Your task to perform on an android device: set default search engine in the chrome app Image 0: 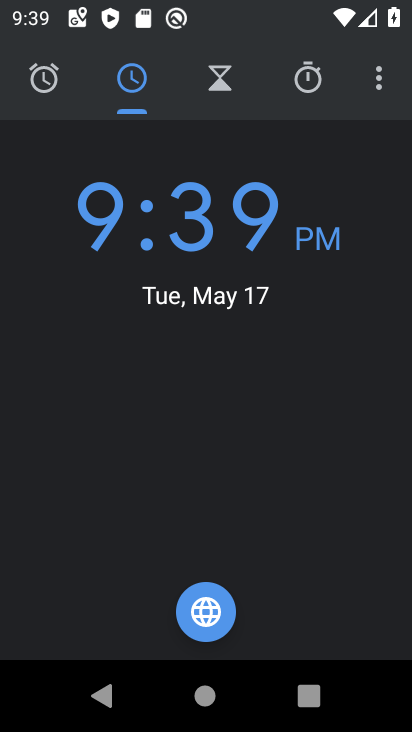
Step 0: press home button
Your task to perform on an android device: set default search engine in the chrome app Image 1: 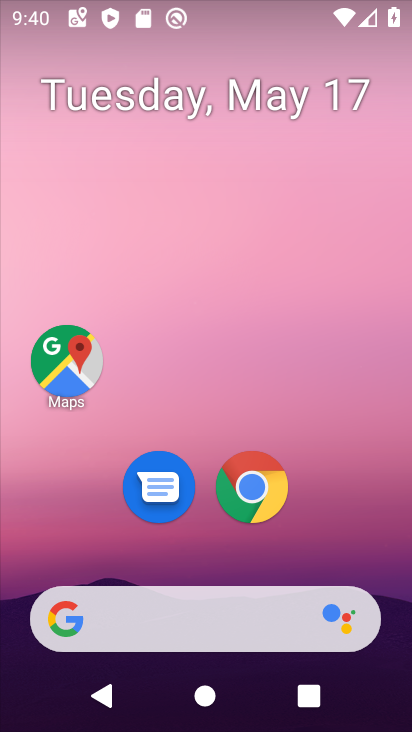
Step 1: drag from (235, 646) to (234, 352)
Your task to perform on an android device: set default search engine in the chrome app Image 2: 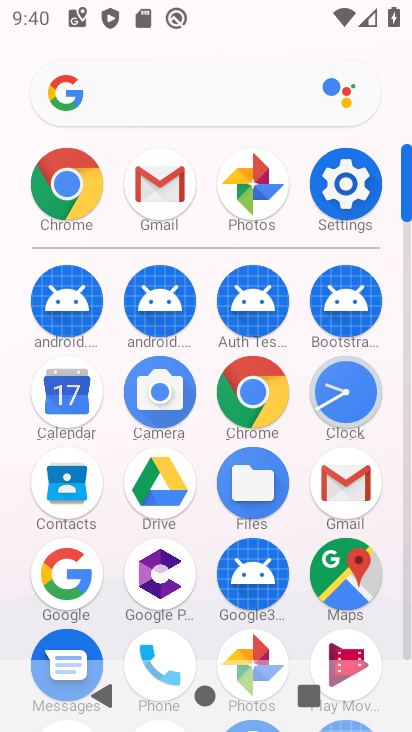
Step 2: click (252, 398)
Your task to perform on an android device: set default search engine in the chrome app Image 3: 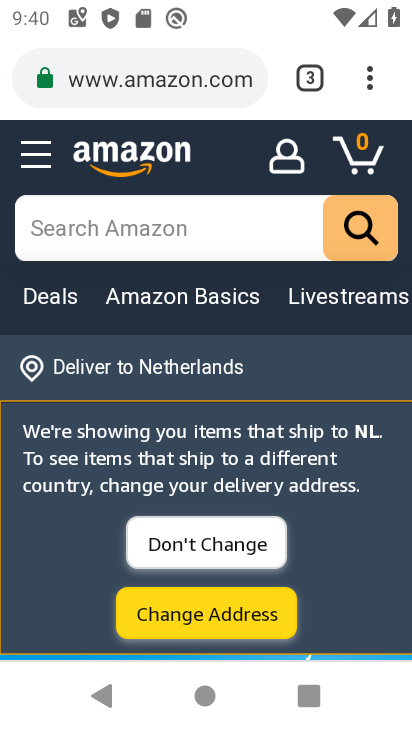
Step 3: click (357, 84)
Your task to perform on an android device: set default search engine in the chrome app Image 4: 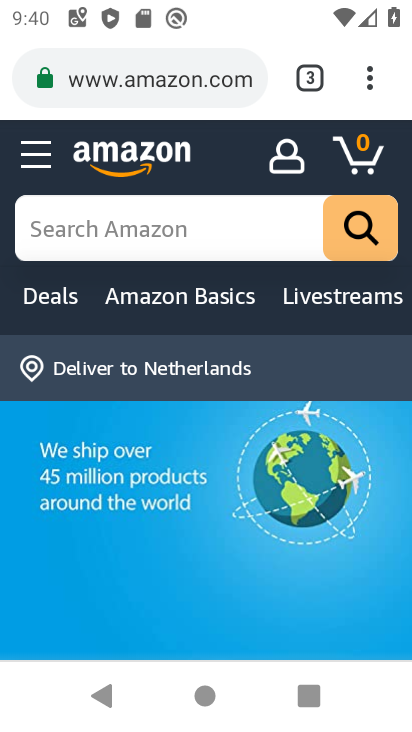
Step 4: click (355, 106)
Your task to perform on an android device: set default search engine in the chrome app Image 5: 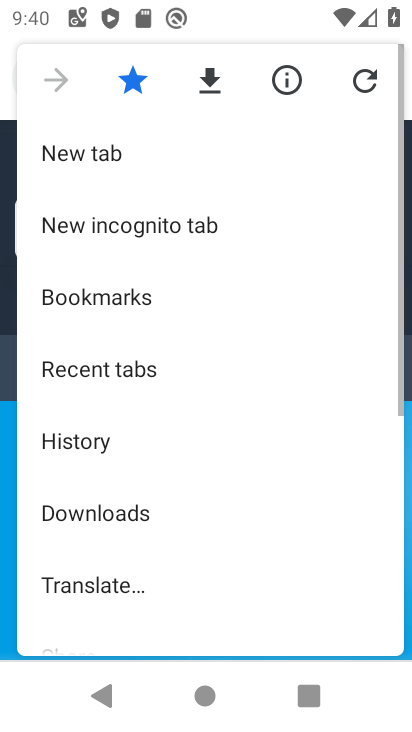
Step 5: drag from (174, 587) to (194, 312)
Your task to perform on an android device: set default search engine in the chrome app Image 6: 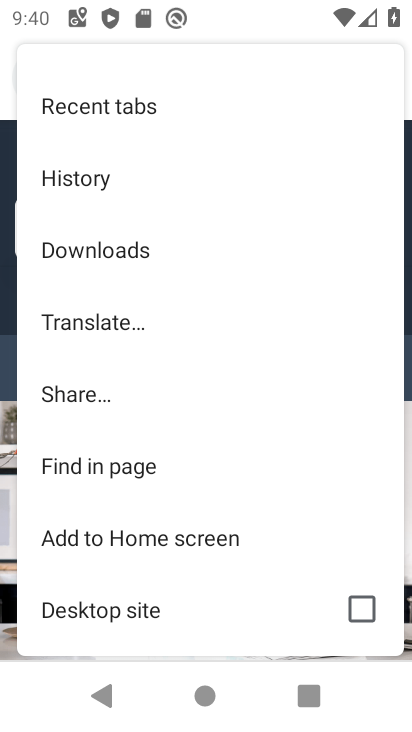
Step 6: drag from (112, 583) to (157, 264)
Your task to perform on an android device: set default search engine in the chrome app Image 7: 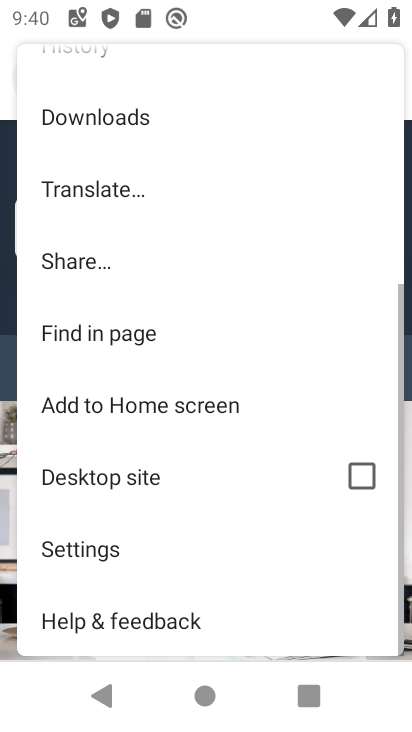
Step 7: click (124, 554)
Your task to perform on an android device: set default search engine in the chrome app Image 8: 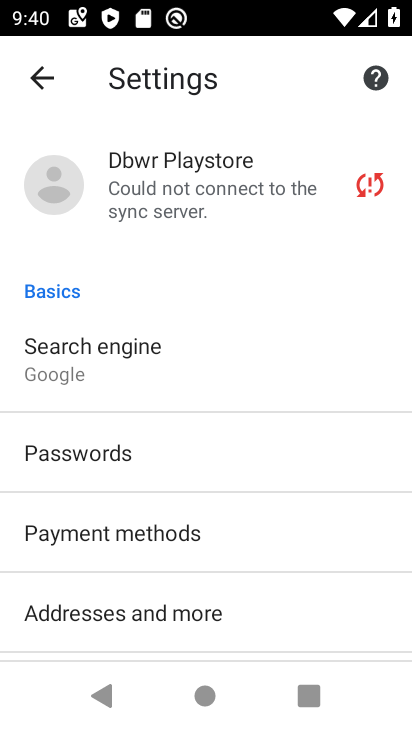
Step 8: click (114, 375)
Your task to perform on an android device: set default search engine in the chrome app Image 9: 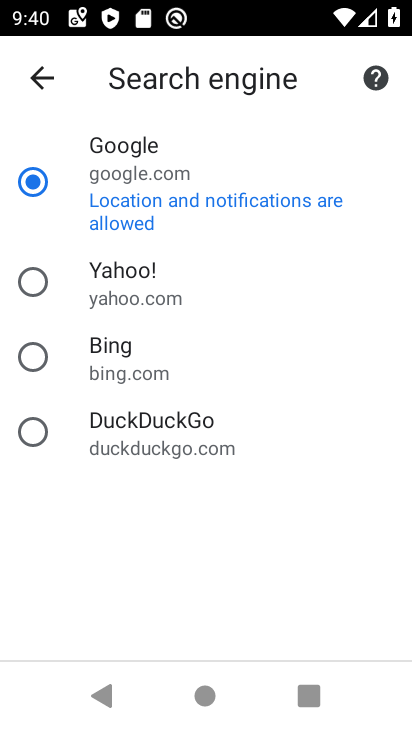
Step 9: task complete